Your task to perform on an android device: Go to Yahoo.com Image 0: 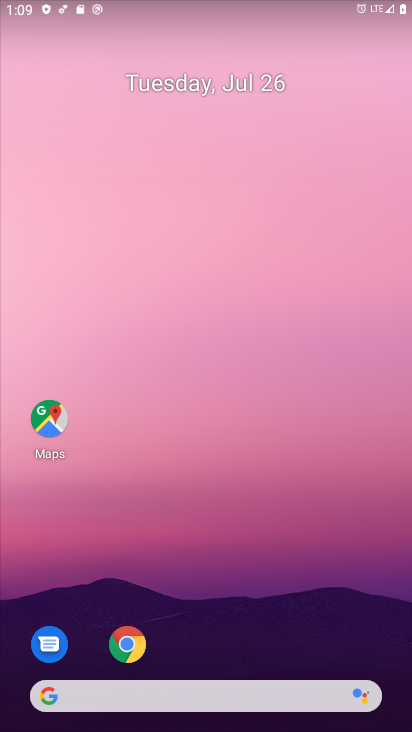
Step 0: click (230, 708)
Your task to perform on an android device: Go to Yahoo.com Image 1: 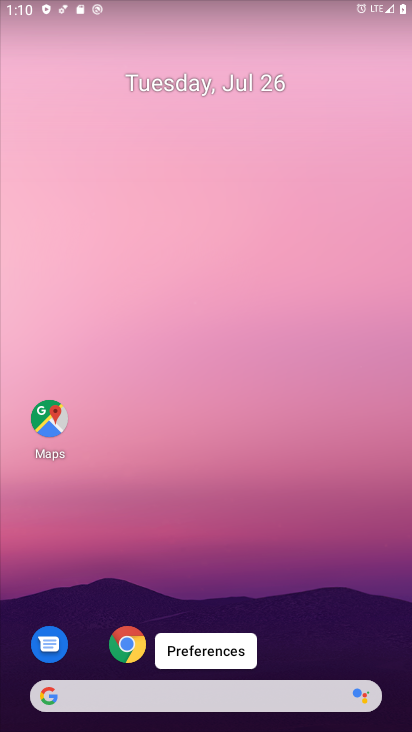
Step 1: type "yahoo.com"
Your task to perform on an android device: Go to Yahoo.com Image 2: 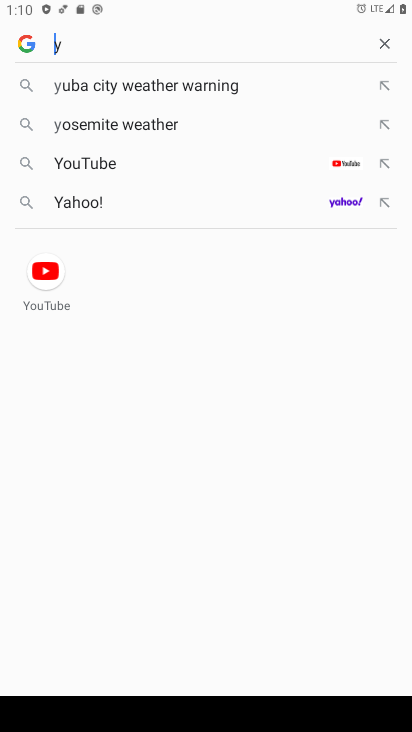
Step 2: type "yahoo.com"
Your task to perform on an android device: Go to Yahoo.com Image 3: 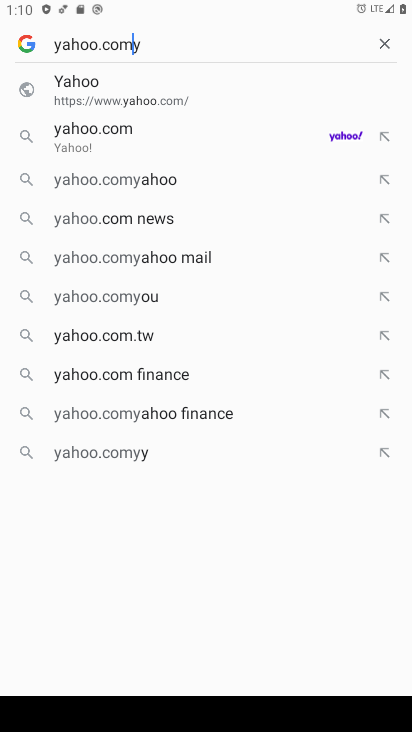
Step 3: click (144, 85)
Your task to perform on an android device: Go to Yahoo.com Image 4: 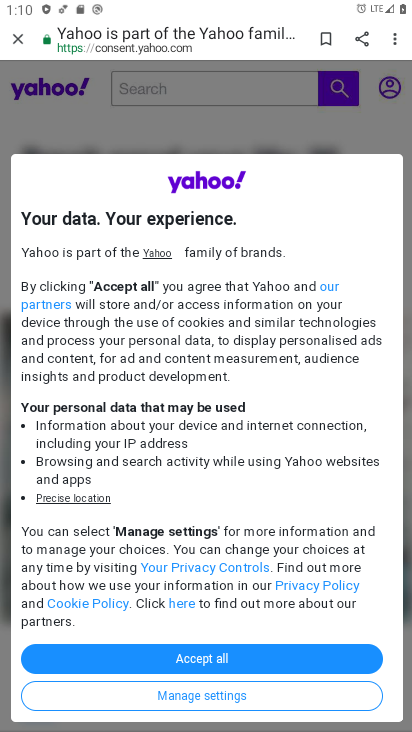
Step 4: task complete